Your task to perform on an android device: Is it going to rain this weekend? Image 0: 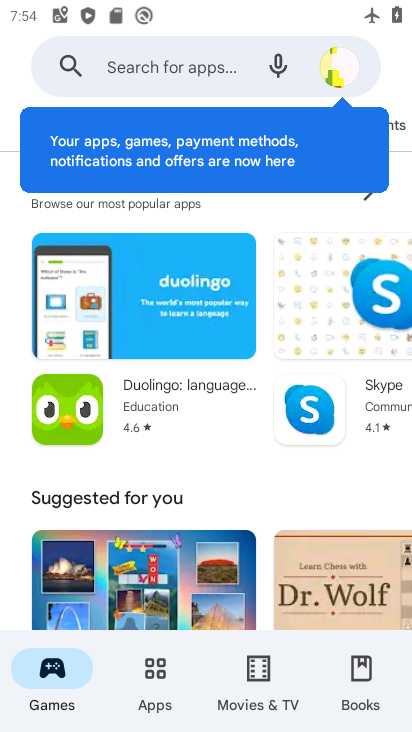
Step 0: press home button
Your task to perform on an android device: Is it going to rain this weekend? Image 1: 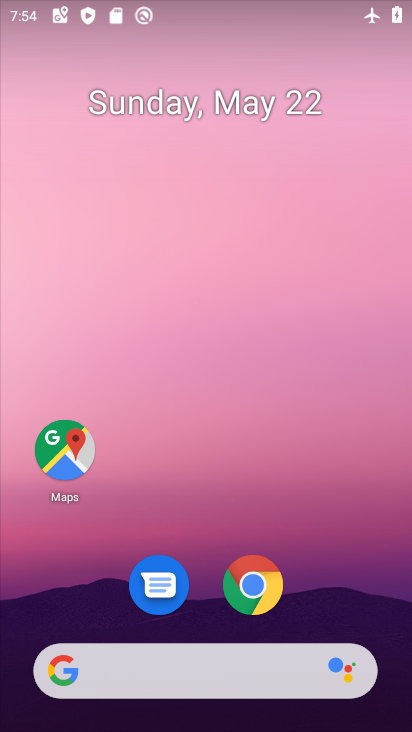
Step 1: click (232, 681)
Your task to perform on an android device: Is it going to rain this weekend? Image 2: 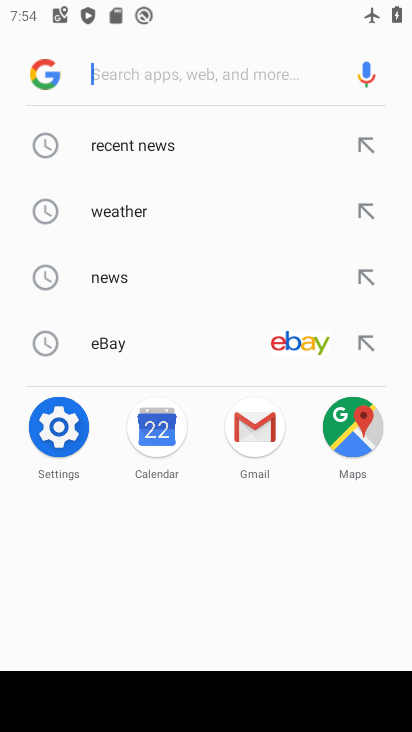
Step 2: click (97, 207)
Your task to perform on an android device: Is it going to rain this weekend? Image 3: 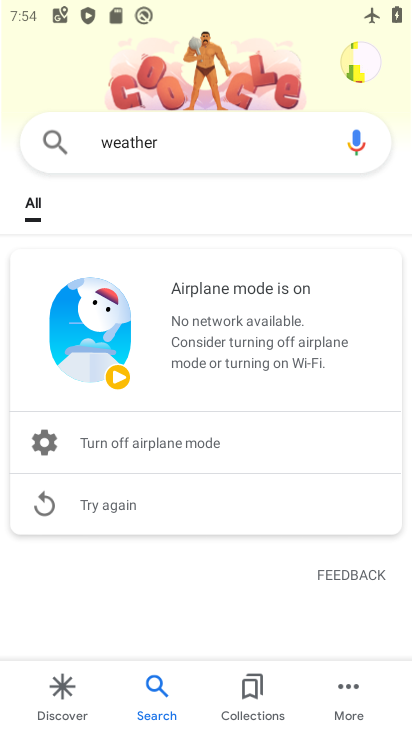
Step 3: task complete